Your task to perform on an android device: When is my next meeting? Image 0: 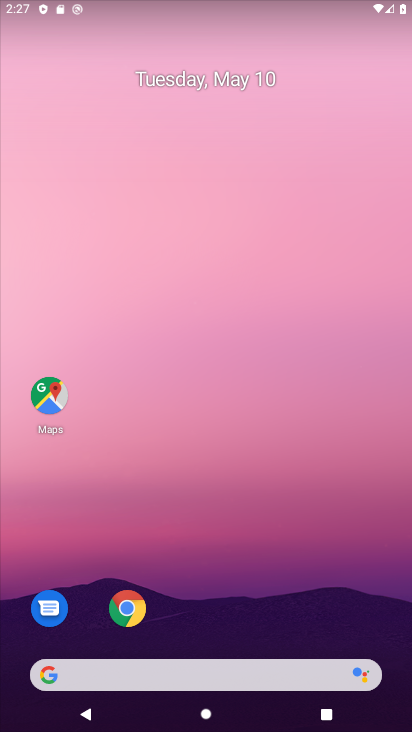
Step 0: drag from (382, 632) to (331, 126)
Your task to perform on an android device: When is my next meeting? Image 1: 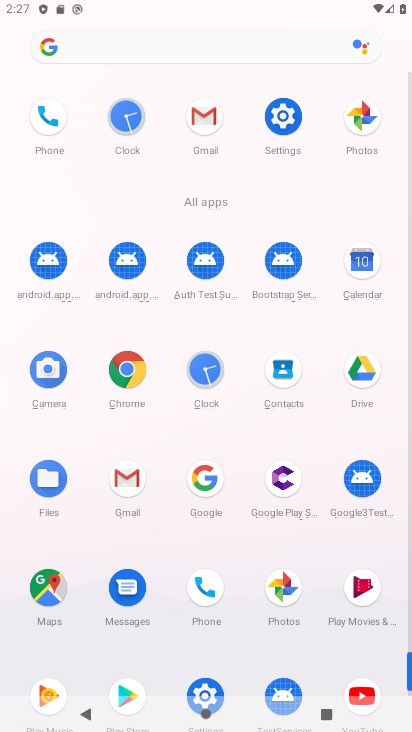
Step 1: click (361, 257)
Your task to perform on an android device: When is my next meeting? Image 2: 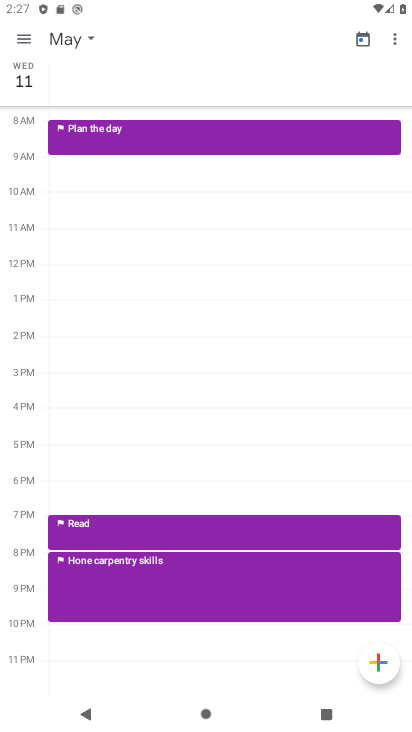
Step 2: click (22, 33)
Your task to perform on an android device: When is my next meeting? Image 3: 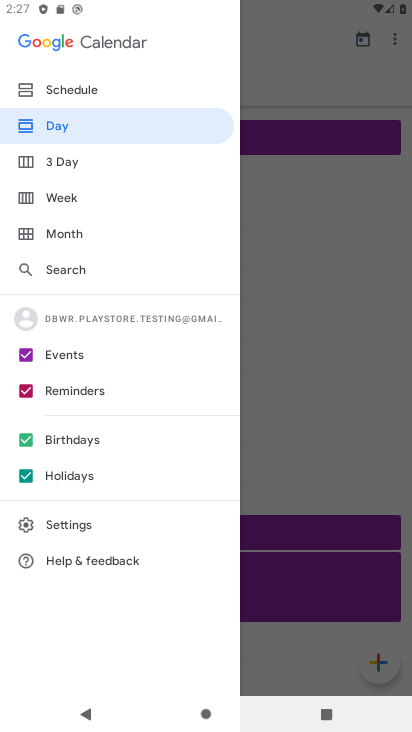
Step 3: click (76, 84)
Your task to perform on an android device: When is my next meeting? Image 4: 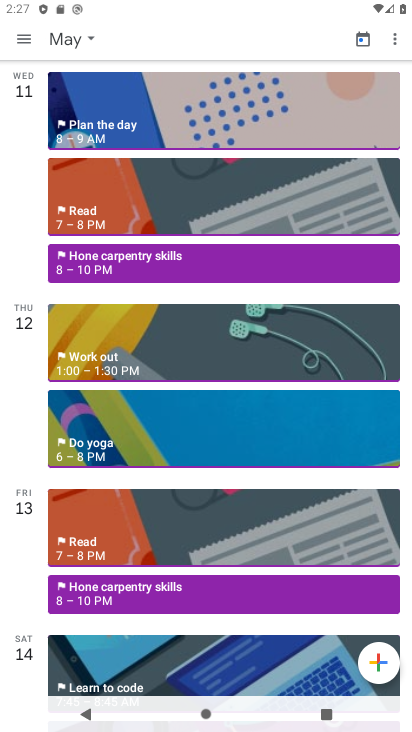
Step 4: task complete